Your task to perform on an android device: allow notifications from all sites in the chrome app Image 0: 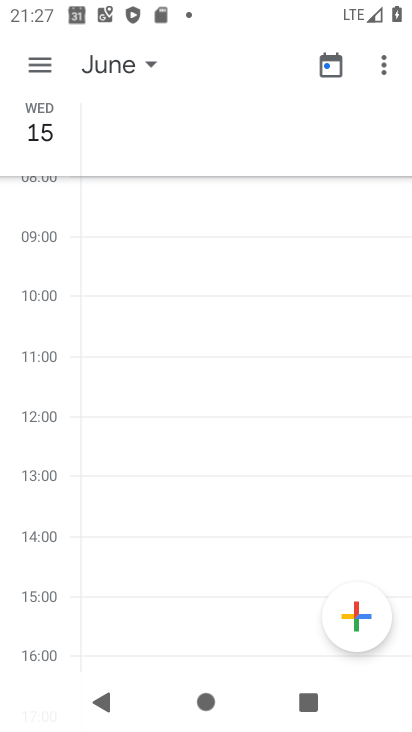
Step 0: press home button
Your task to perform on an android device: allow notifications from all sites in the chrome app Image 1: 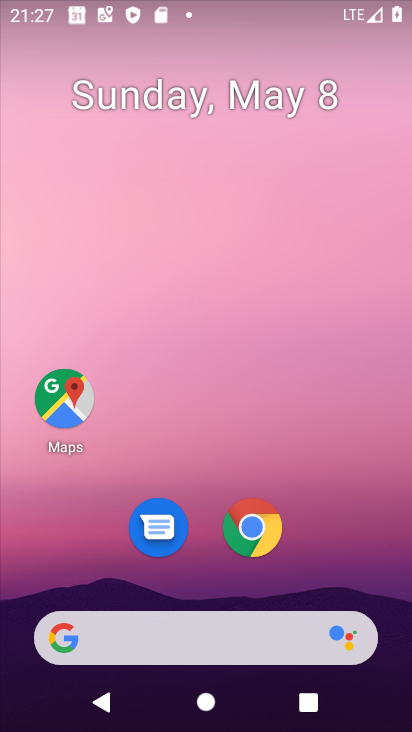
Step 1: click (255, 523)
Your task to perform on an android device: allow notifications from all sites in the chrome app Image 2: 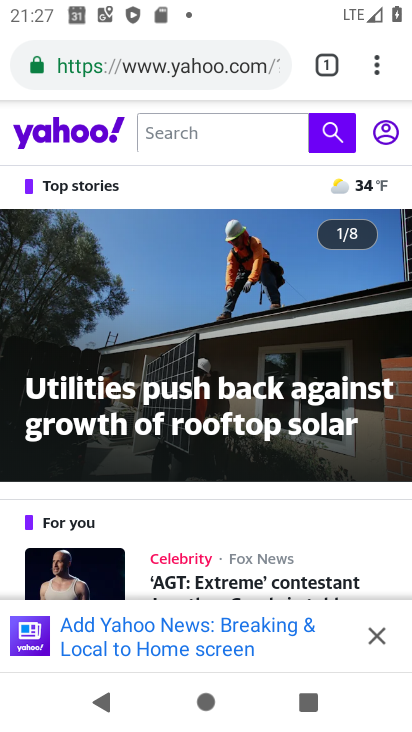
Step 2: click (369, 65)
Your task to perform on an android device: allow notifications from all sites in the chrome app Image 3: 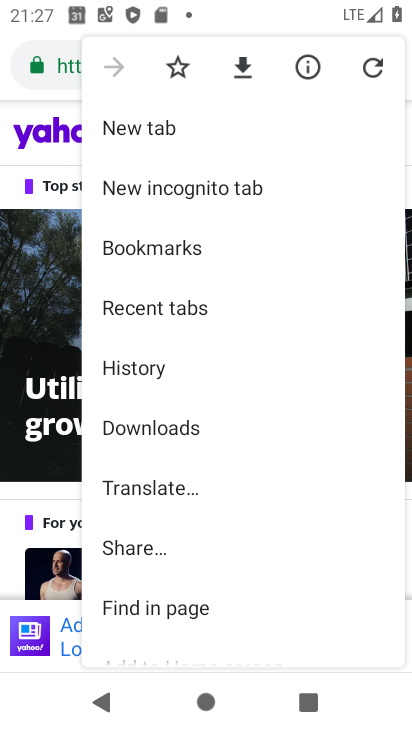
Step 3: drag from (289, 601) to (263, 286)
Your task to perform on an android device: allow notifications from all sites in the chrome app Image 4: 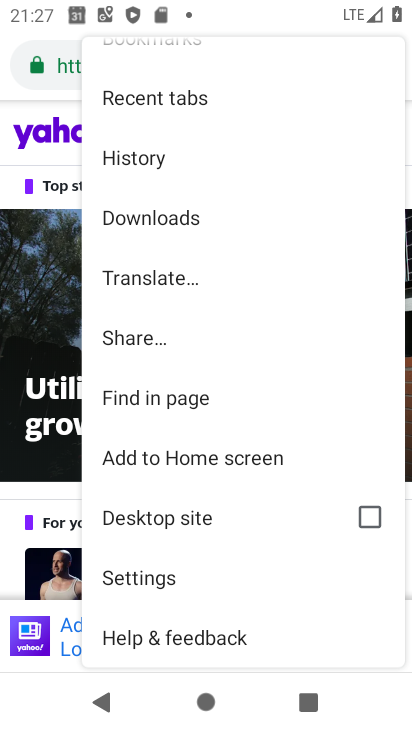
Step 4: click (172, 587)
Your task to perform on an android device: allow notifications from all sites in the chrome app Image 5: 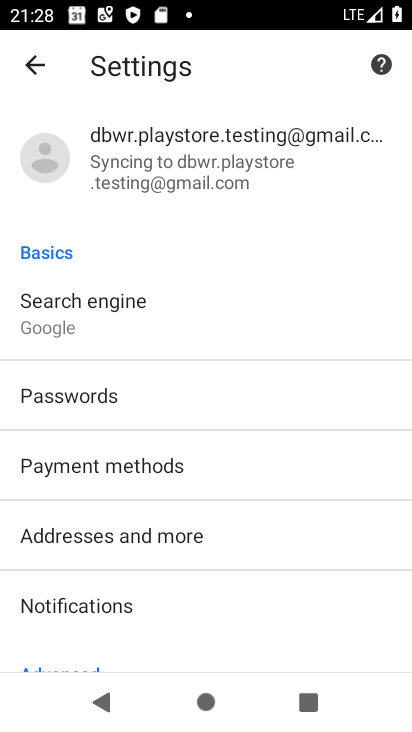
Step 5: drag from (244, 565) to (281, 47)
Your task to perform on an android device: allow notifications from all sites in the chrome app Image 6: 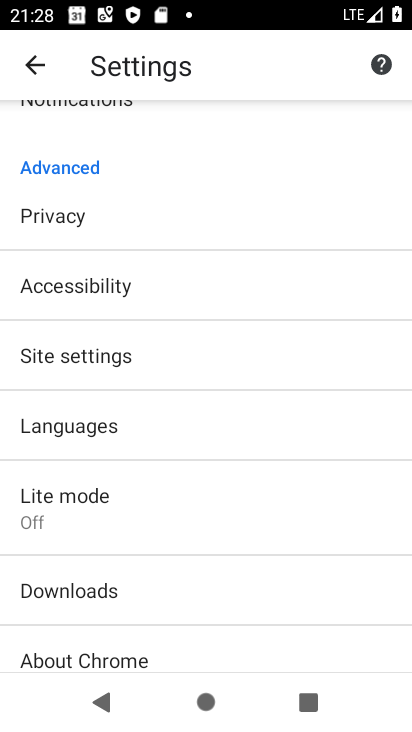
Step 6: click (98, 351)
Your task to perform on an android device: allow notifications from all sites in the chrome app Image 7: 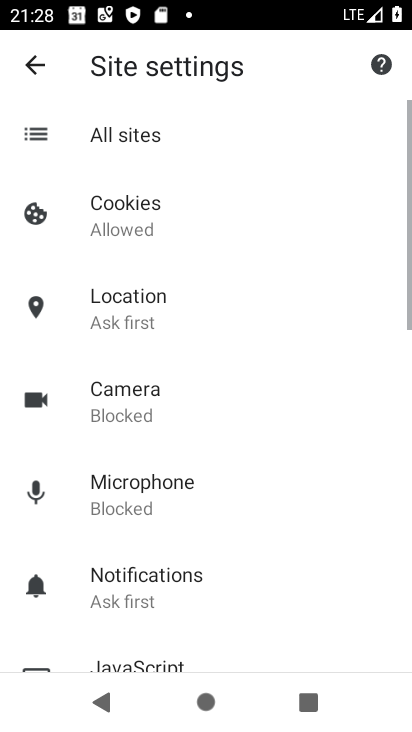
Step 7: drag from (234, 512) to (267, 217)
Your task to perform on an android device: allow notifications from all sites in the chrome app Image 8: 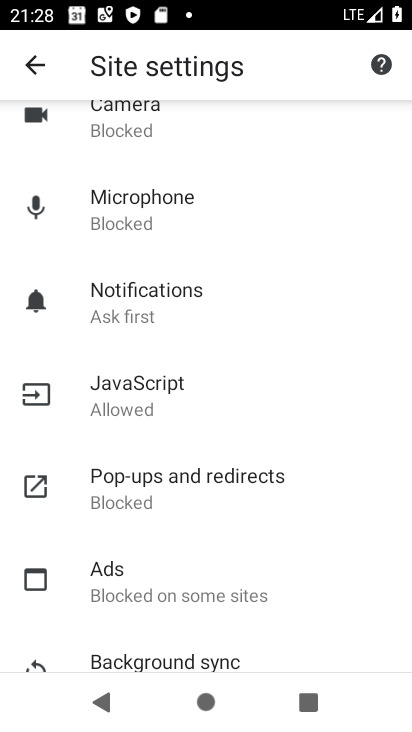
Step 8: click (137, 300)
Your task to perform on an android device: allow notifications from all sites in the chrome app Image 9: 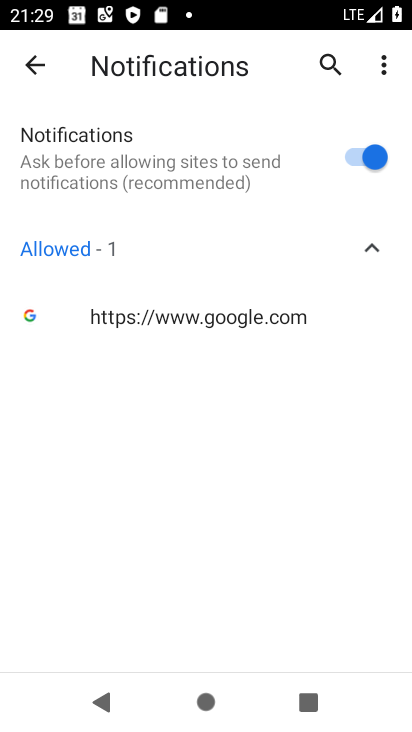
Step 9: task complete